Your task to perform on an android device: allow cookies in the chrome app Image 0: 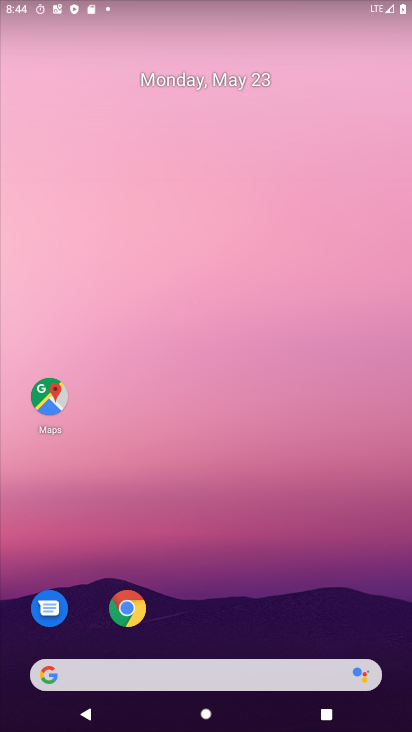
Step 0: click (120, 618)
Your task to perform on an android device: allow cookies in the chrome app Image 1: 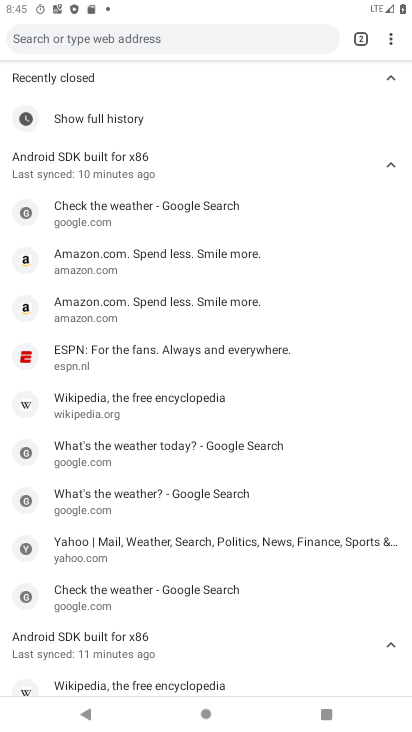
Step 1: drag from (384, 42) to (274, 327)
Your task to perform on an android device: allow cookies in the chrome app Image 2: 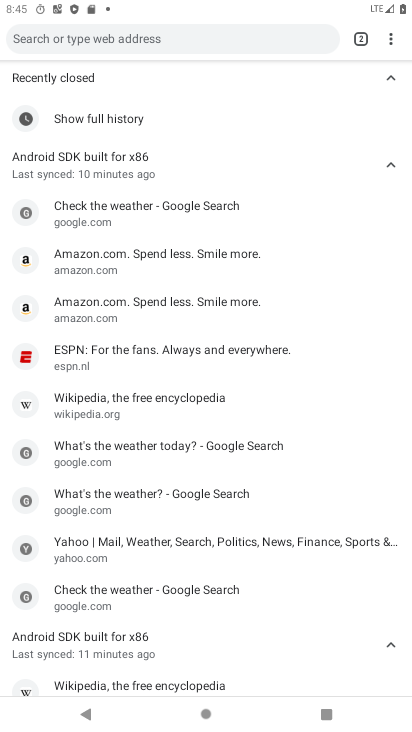
Step 2: click (274, 327)
Your task to perform on an android device: allow cookies in the chrome app Image 3: 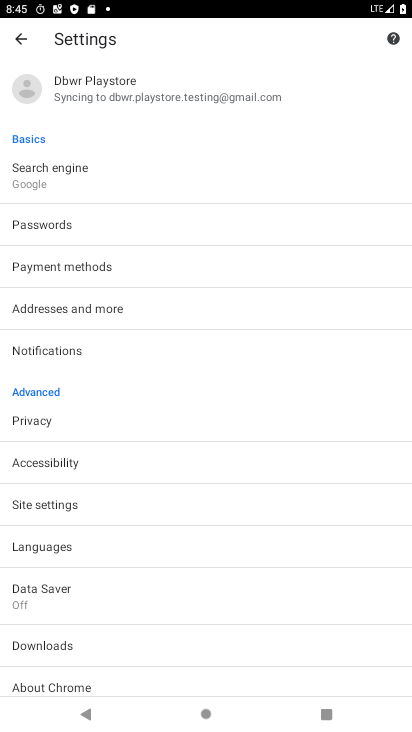
Step 3: click (60, 502)
Your task to perform on an android device: allow cookies in the chrome app Image 4: 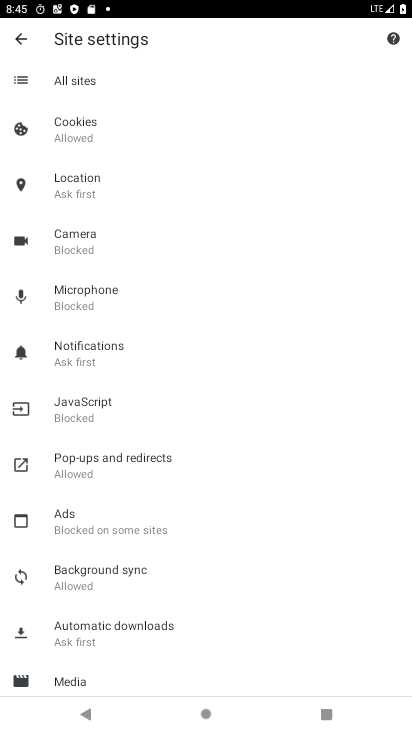
Step 4: click (56, 124)
Your task to perform on an android device: allow cookies in the chrome app Image 5: 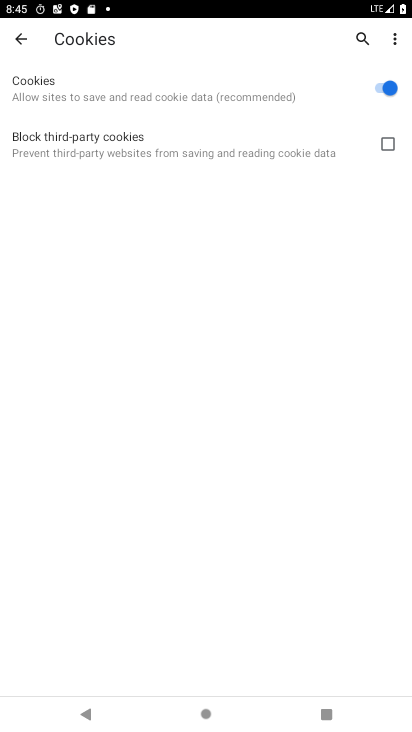
Step 5: task complete